Your task to perform on an android device: What's the weather today? Image 0: 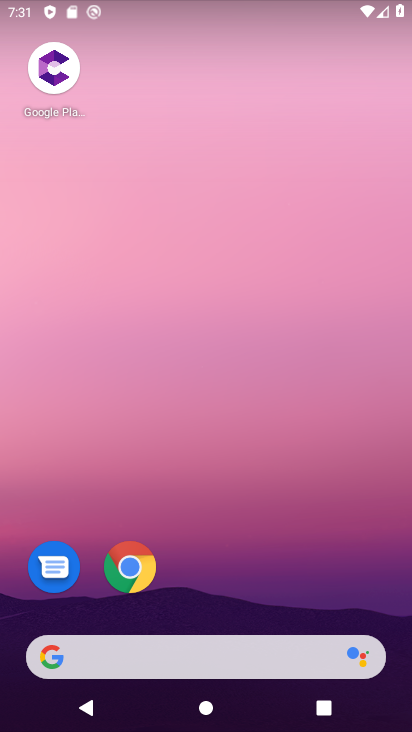
Step 0: drag from (241, 327) to (277, 105)
Your task to perform on an android device: What's the weather today? Image 1: 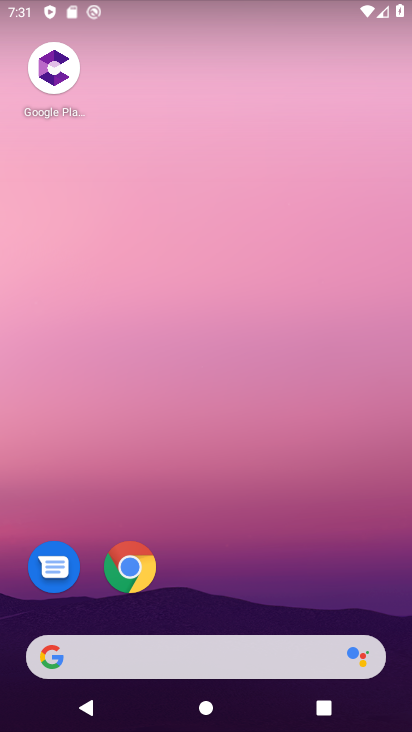
Step 1: drag from (249, 596) to (283, 173)
Your task to perform on an android device: What's the weather today? Image 2: 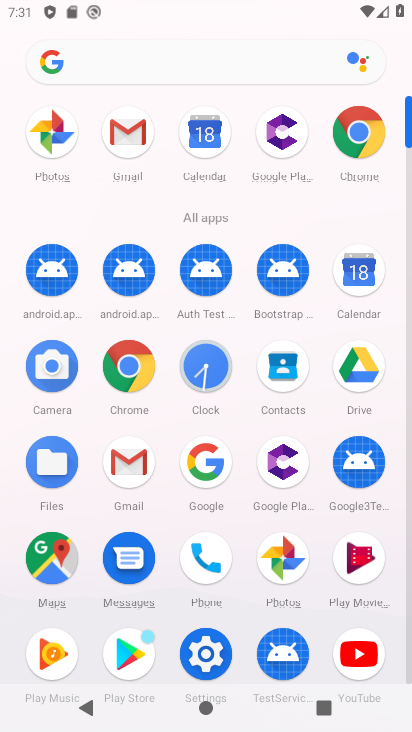
Step 2: click (213, 456)
Your task to perform on an android device: What's the weather today? Image 3: 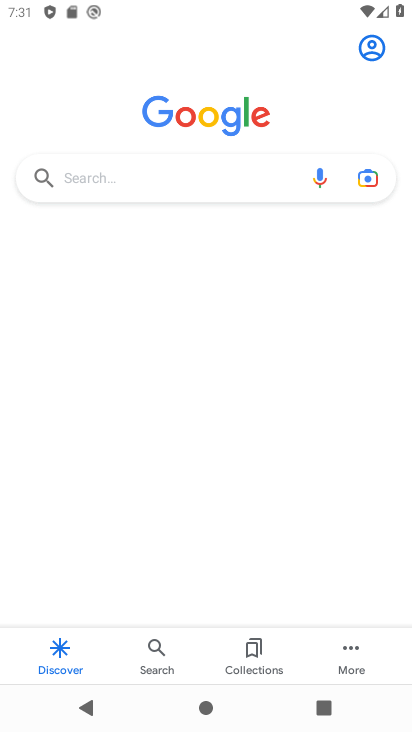
Step 3: click (185, 152)
Your task to perform on an android device: What's the weather today? Image 4: 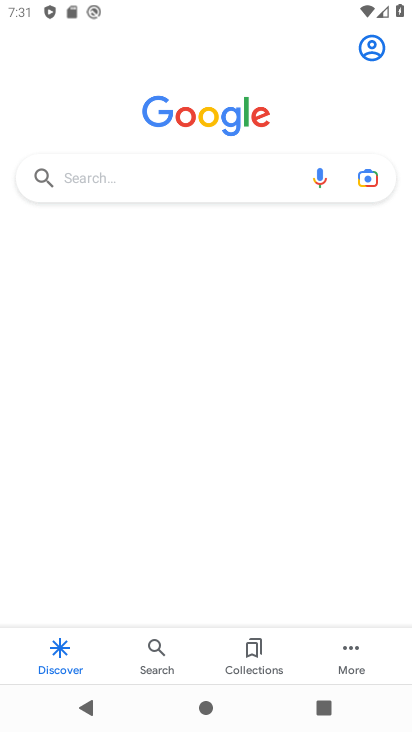
Step 4: click (190, 168)
Your task to perform on an android device: What's the weather today? Image 5: 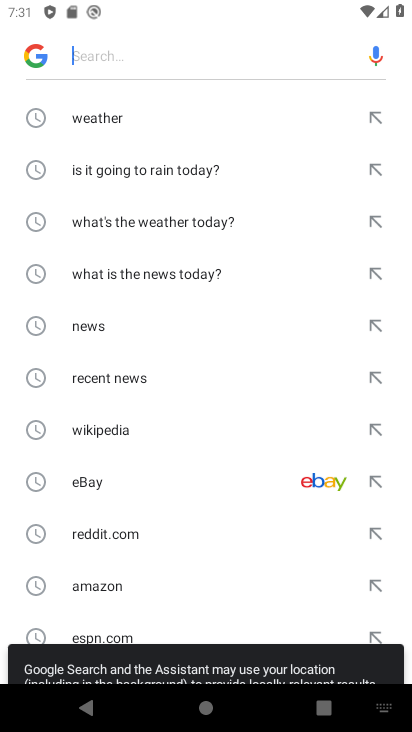
Step 5: click (138, 115)
Your task to perform on an android device: What's the weather today? Image 6: 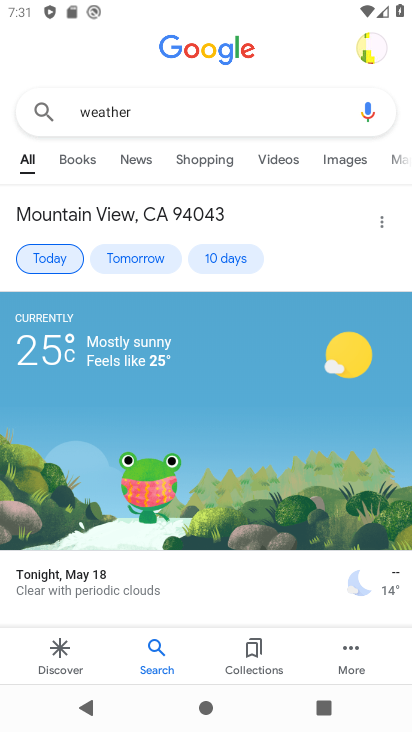
Step 6: task complete